Your task to perform on an android device: stop showing notifications on the lock screen Image 0: 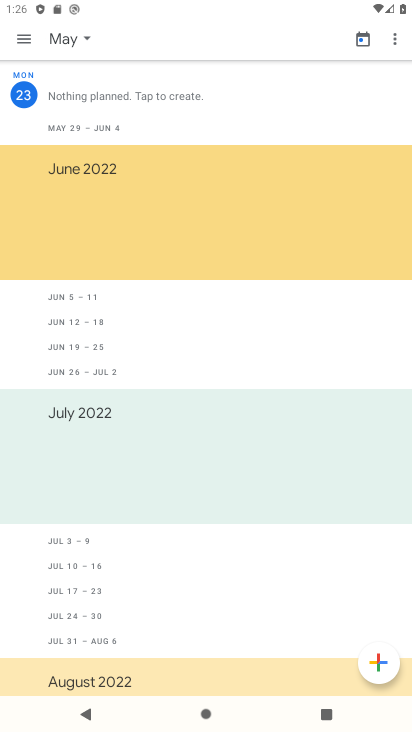
Step 0: press home button
Your task to perform on an android device: stop showing notifications on the lock screen Image 1: 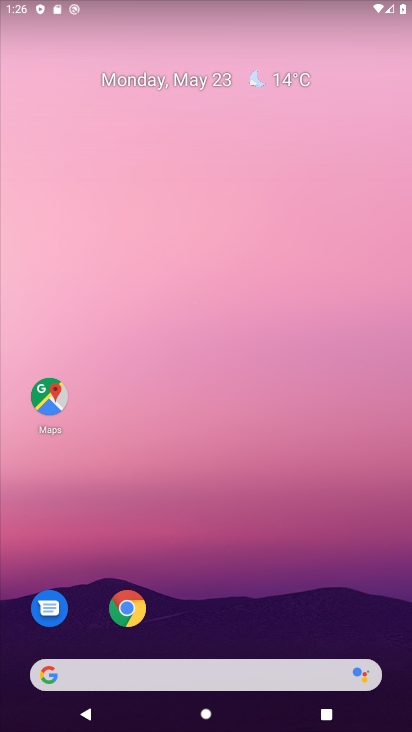
Step 1: drag from (270, 607) to (238, 145)
Your task to perform on an android device: stop showing notifications on the lock screen Image 2: 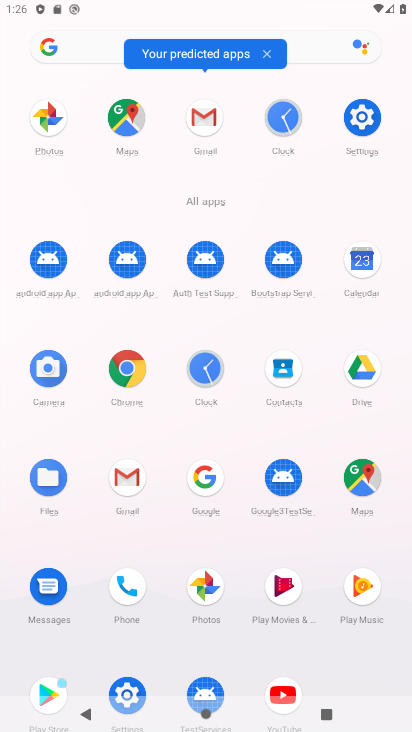
Step 2: click (366, 121)
Your task to perform on an android device: stop showing notifications on the lock screen Image 3: 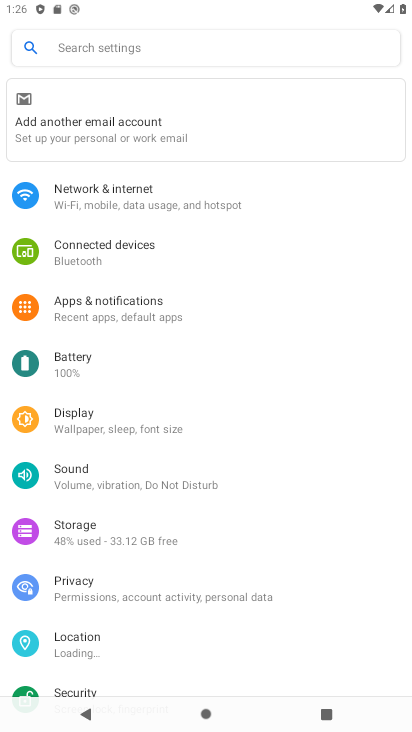
Step 3: click (148, 321)
Your task to perform on an android device: stop showing notifications on the lock screen Image 4: 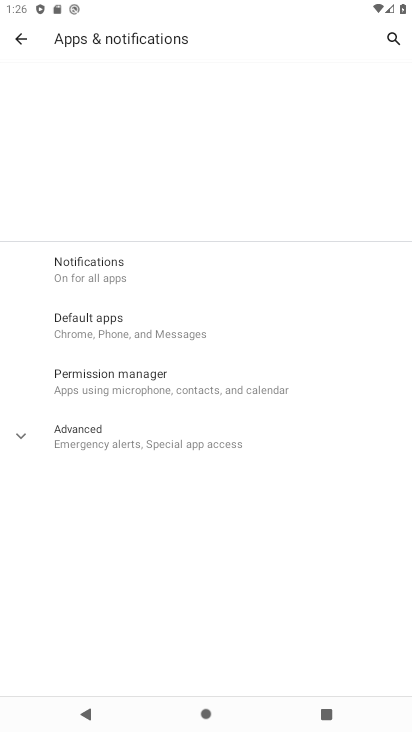
Step 4: click (136, 268)
Your task to perform on an android device: stop showing notifications on the lock screen Image 5: 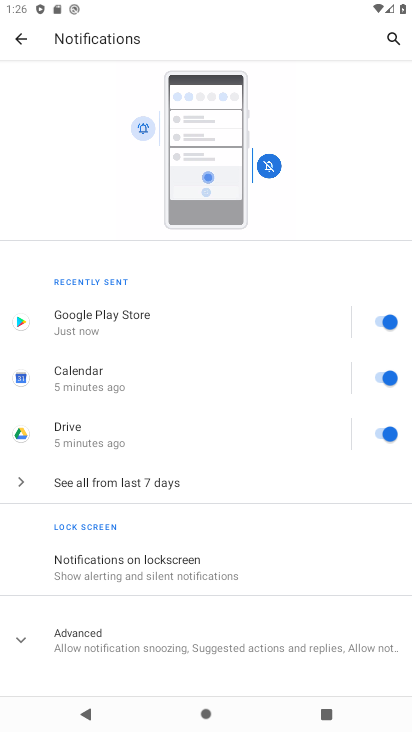
Step 5: click (117, 562)
Your task to perform on an android device: stop showing notifications on the lock screen Image 6: 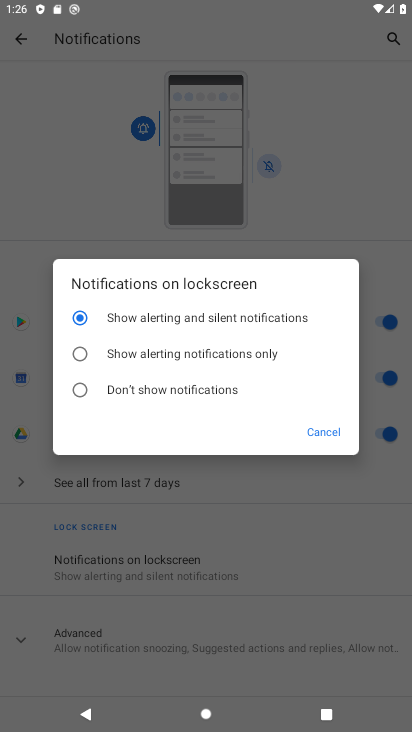
Step 6: click (149, 385)
Your task to perform on an android device: stop showing notifications on the lock screen Image 7: 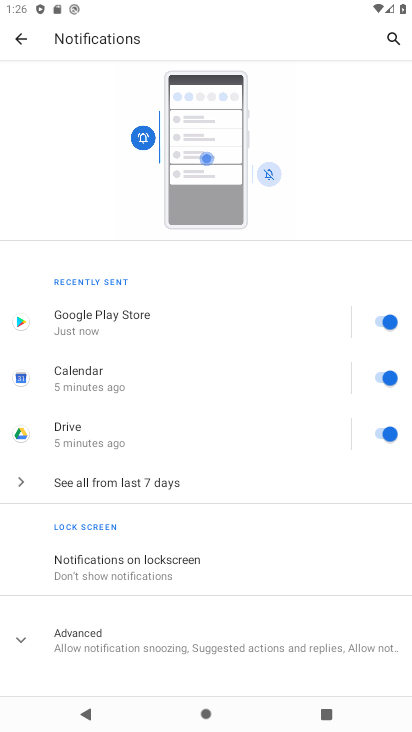
Step 7: task complete